Your task to perform on an android device: toggle airplane mode Image 0: 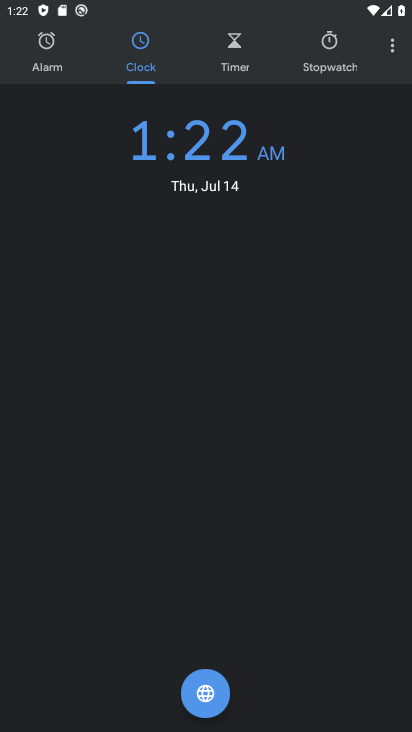
Step 0: press home button
Your task to perform on an android device: toggle airplane mode Image 1: 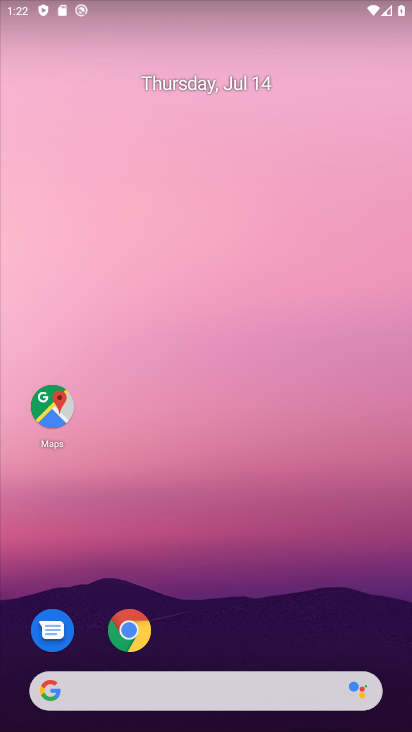
Step 1: drag from (224, 686) to (188, 31)
Your task to perform on an android device: toggle airplane mode Image 2: 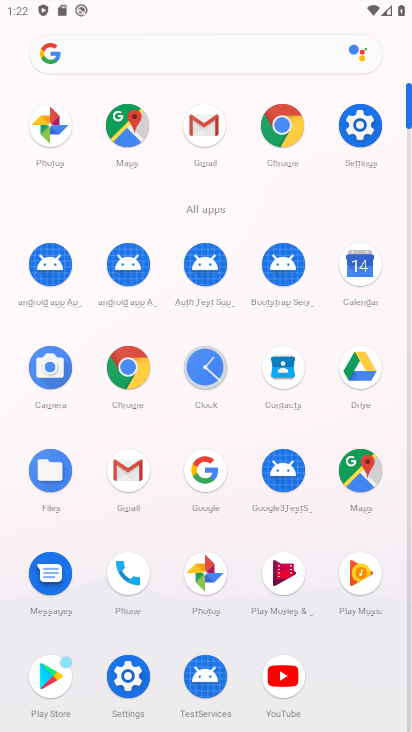
Step 2: click (357, 128)
Your task to perform on an android device: toggle airplane mode Image 3: 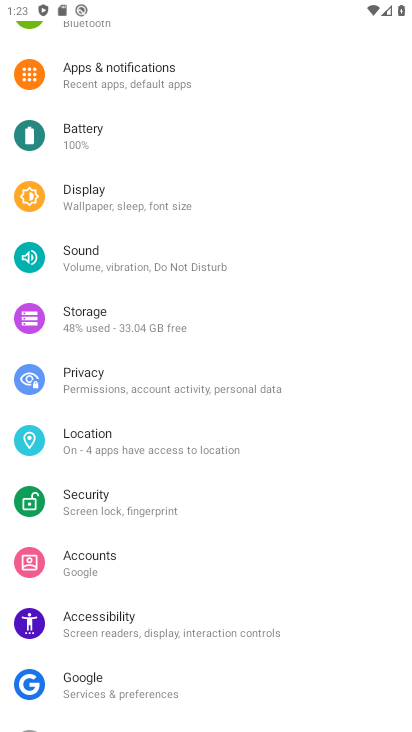
Step 3: drag from (154, 90) to (154, 464)
Your task to perform on an android device: toggle airplane mode Image 4: 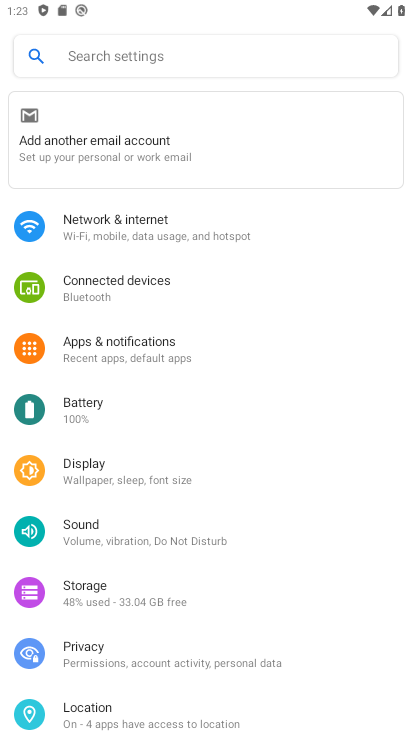
Step 4: click (162, 222)
Your task to perform on an android device: toggle airplane mode Image 5: 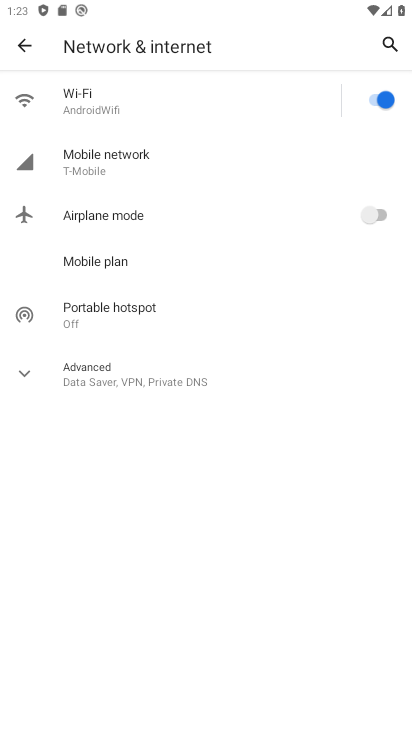
Step 5: click (376, 220)
Your task to perform on an android device: toggle airplane mode Image 6: 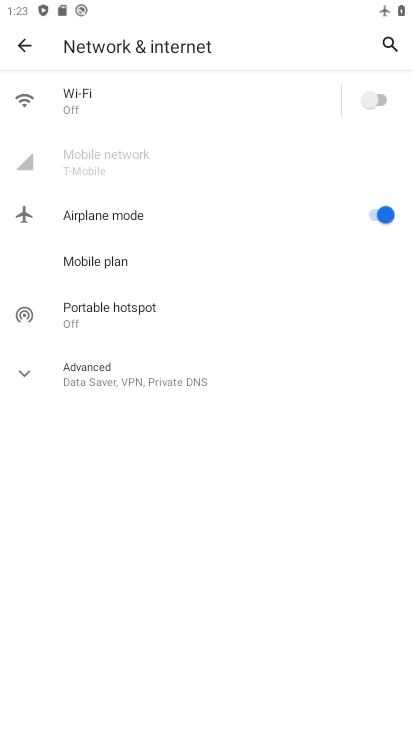
Step 6: task complete